Your task to perform on an android device: Open Chrome and go to settings Image 0: 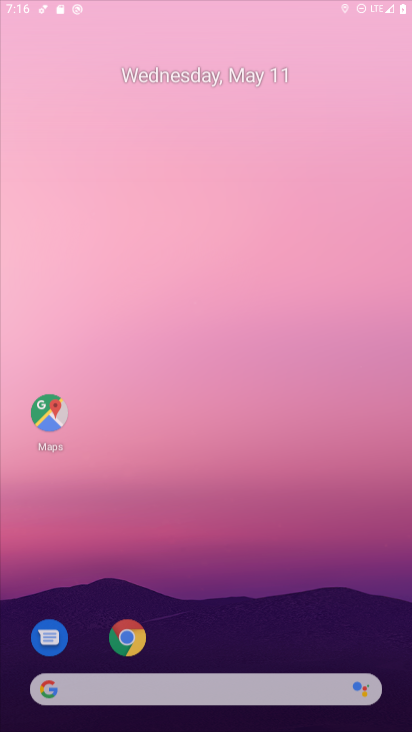
Step 0: click (190, 83)
Your task to perform on an android device: Open Chrome and go to settings Image 1: 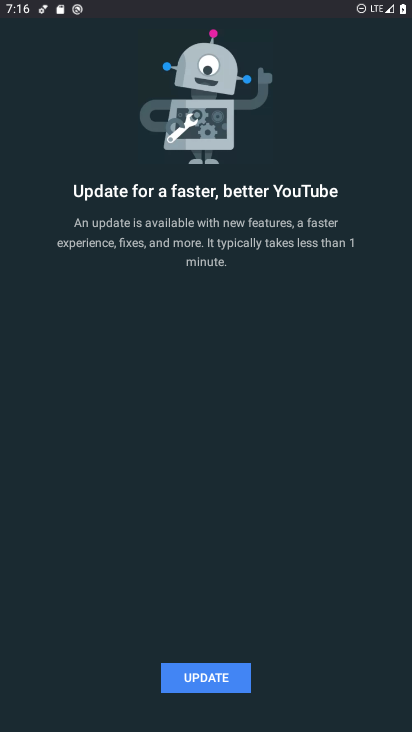
Step 1: press home button
Your task to perform on an android device: Open Chrome and go to settings Image 2: 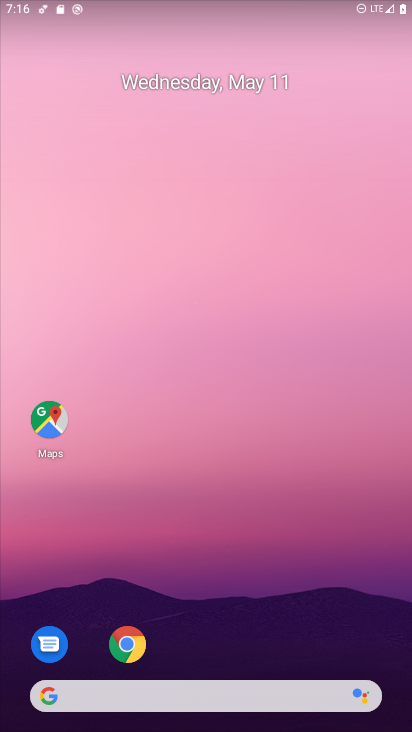
Step 2: click (125, 646)
Your task to perform on an android device: Open Chrome and go to settings Image 3: 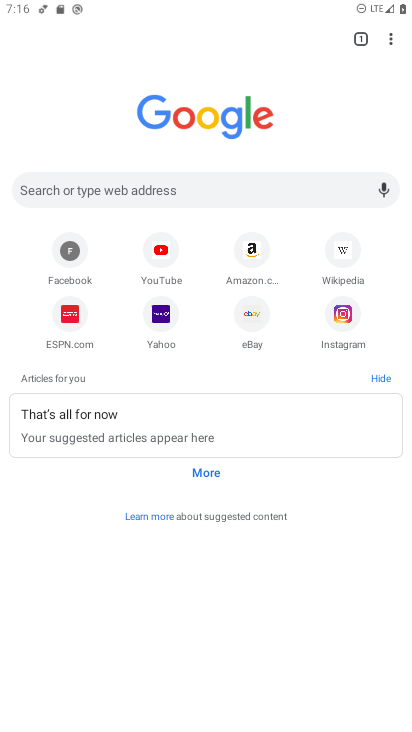
Step 3: click (391, 35)
Your task to perform on an android device: Open Chrome and go to settings Image 4: 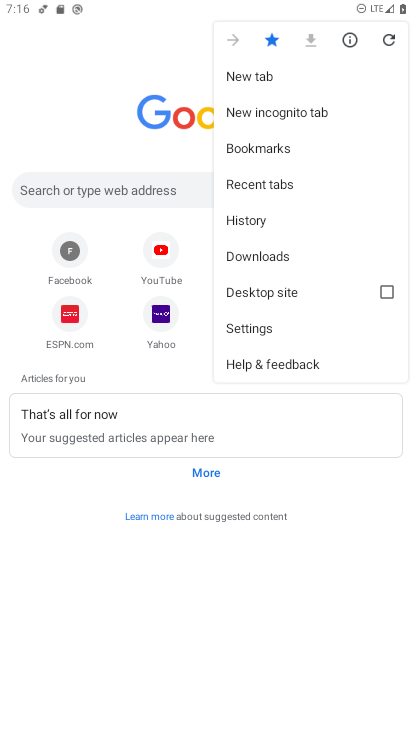
Step 4: click (251, 329)
Your task to perform on an android device: Open Chrome and go to settings Image 5: 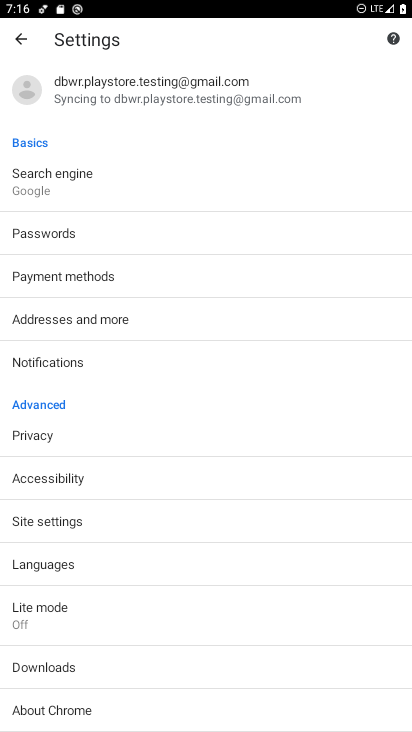
Step 5: task complete